Your task to perform on an android device: turn on airplane mode Image 0: 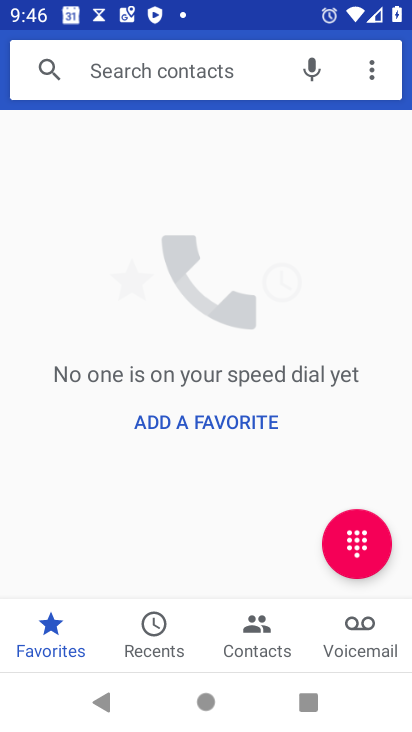
Step 0: drag from (351, 7) to (347, 305)
Your task to perform on an android device: turn on airplane mode Image 1: 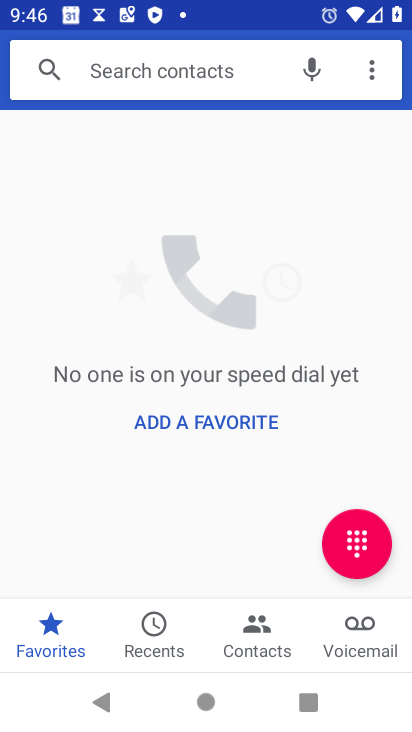
Step 1: drag from (332, 5) to (291, 619)
Your task to perform on an android device: turn on airplane mode Image 2: 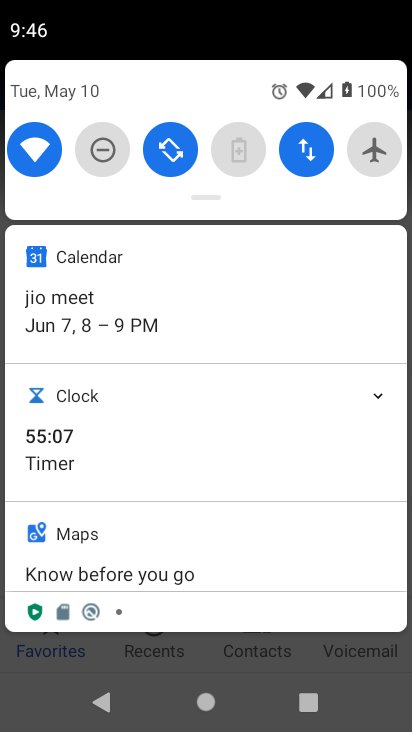
Step 2: click (374, 153)
Your task to perform on an android device: turn on airplane mode Image 3: 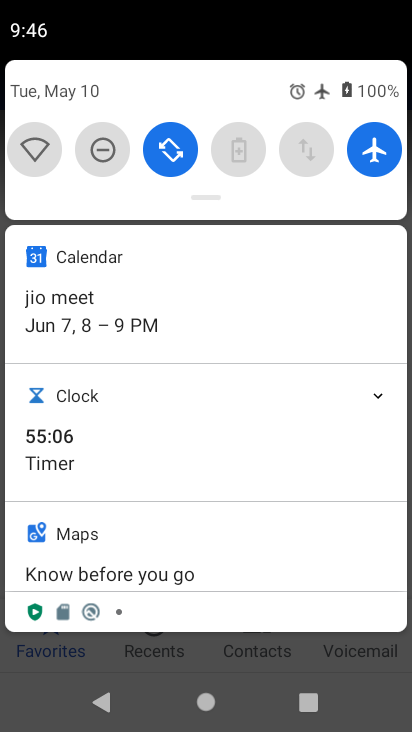
Step 3: task complete